Your task to perform on an android device: change the clock style Image 0: 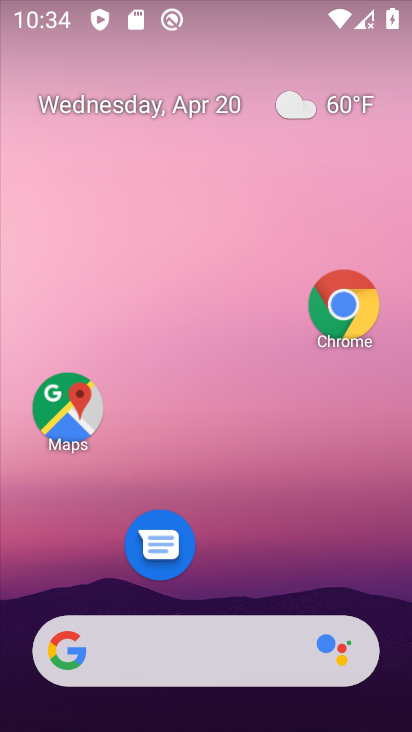
Step 0: drag from (275, 499) to (307, 315)
Your task to perform on an android device: change the clock style Image 1: 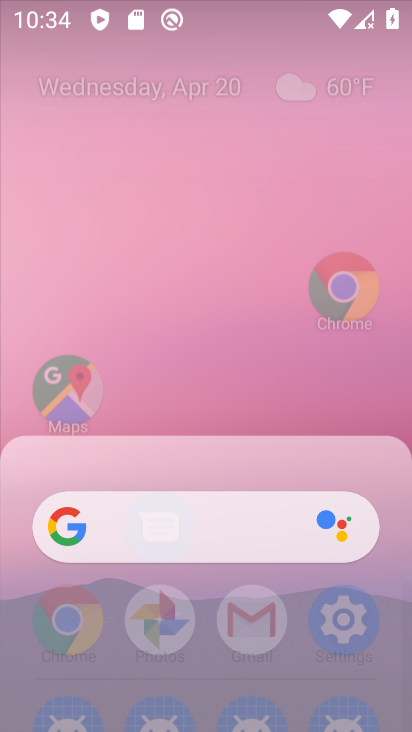
Step 1: drag from (317, 238) to (328, 196)
Your task to perform on an android device: change the clock style Image 2: 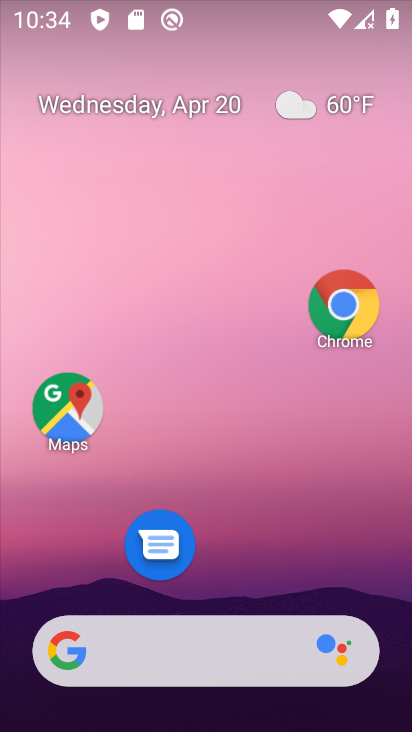
Step 2: drag from (349, 319) to (340, 66)
Your task to perform on an android device: change the clock style Image 3: 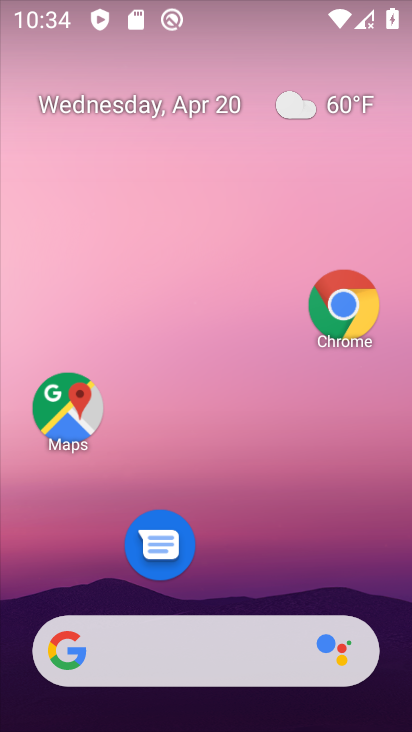
Step 3: drag from (287, 582) to (329, 204)
Your task to perform on an android device: change the clock style Image 4: 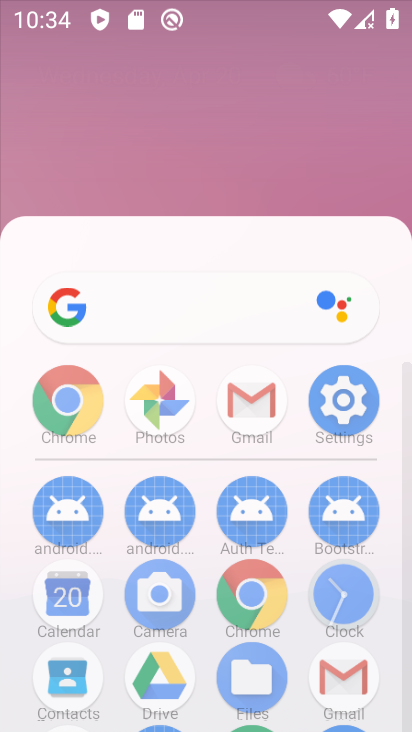
Step 4: click (342, 150)
Your task to perform on an android device: change the clock style Image 5: 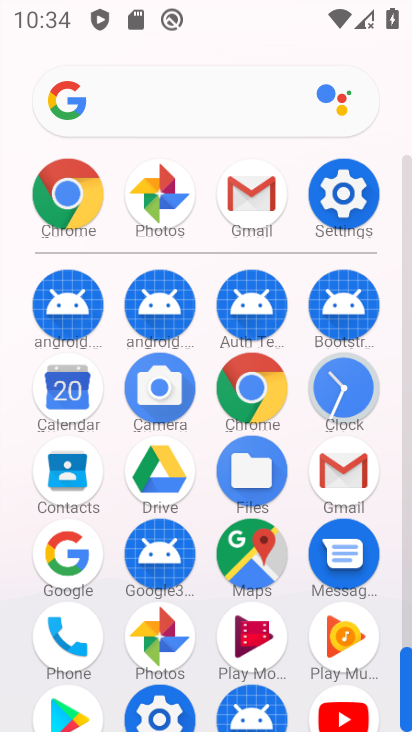
Step 5: click (359, 405)
Your task to perform on an android device: change the clock style Image 6: 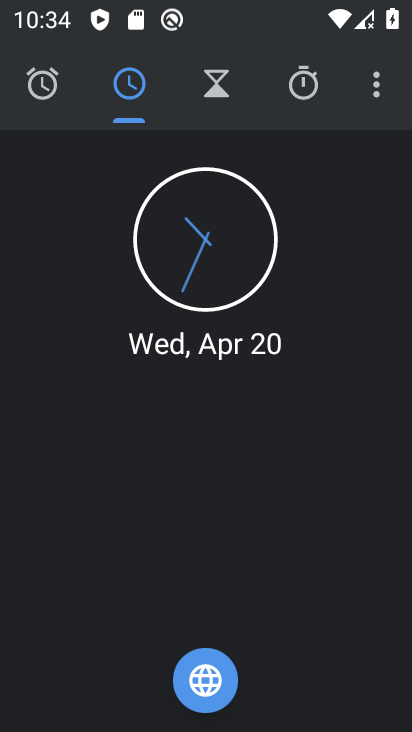
Step 6: click (377, 82)
Your task to perform on an android device: change the clock style Image 7: 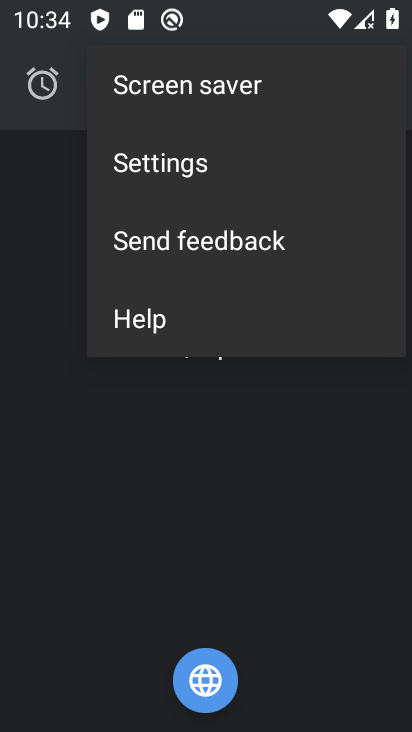
Step 7: click (228, 174)
Your task to perform on an android device: change the clock style Image 8: 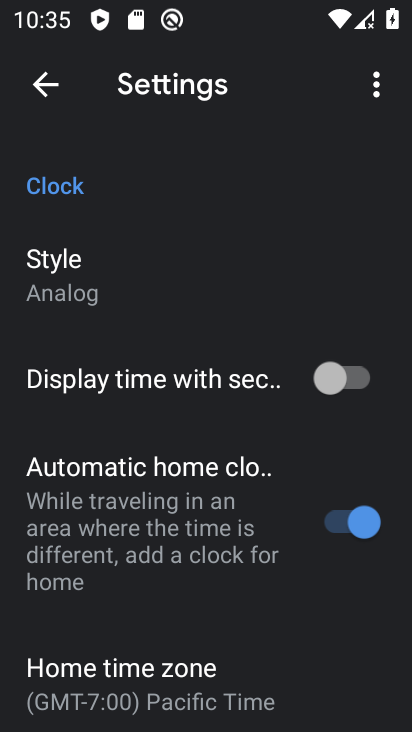
Step 8: click (161, 282)
Your task to perform on an android device: change the clock style Image 9: 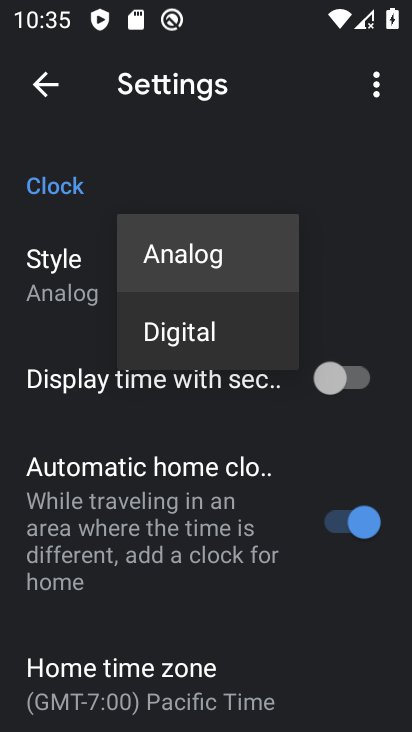
Step 9: click (210, 331)
Your task to perform on an android device: change the clock style Image 10: 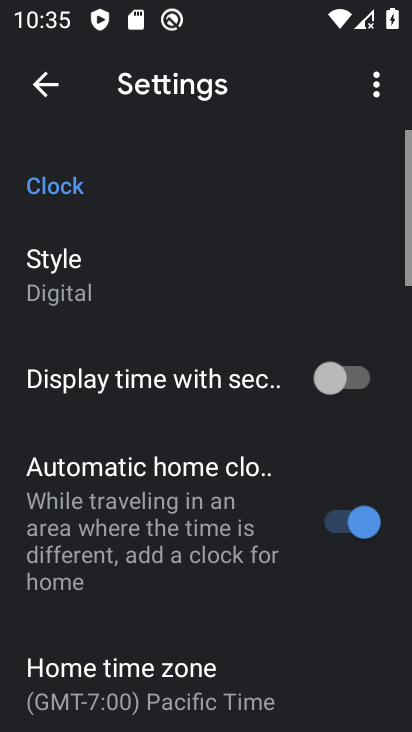
Step 10: task complete